Your task to perform on an android device: Open the stopwatch Image 0: 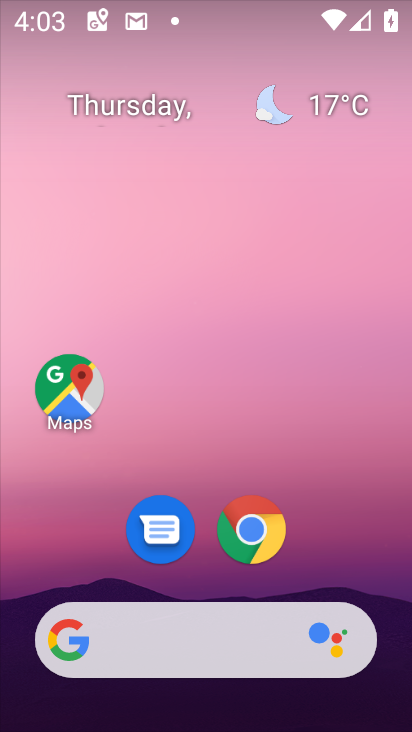
Step 0: drag from (178, 588) to (187, 12)
Your task to perform on an android device: Open the stopwatch Image 1: 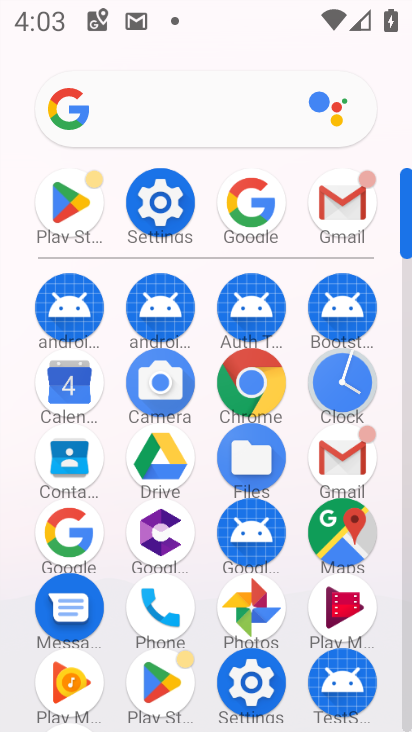
Step 1: click (333, 388)
Your task to perform on an android device: Open the stopwatch Image 2: 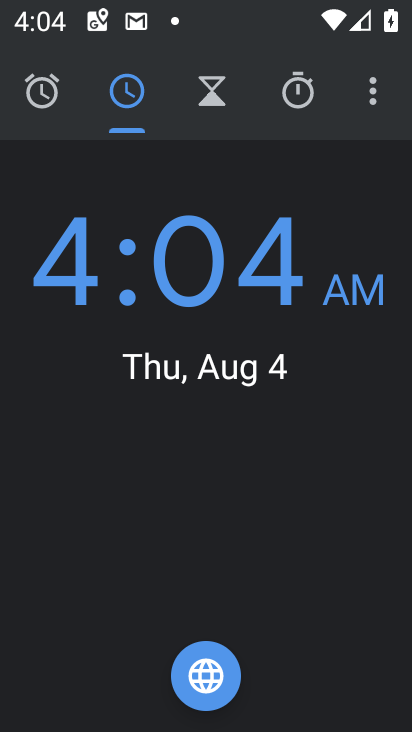
Step 2: click (310, 92)
Your task to perform on an android device: Open the stopwatch Image 3: 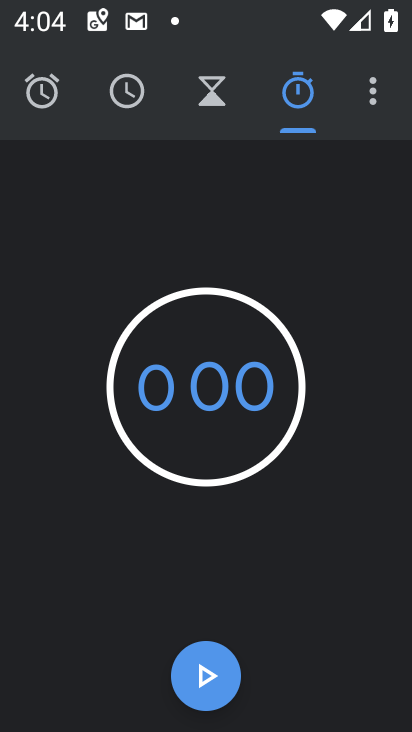
Step 3: task complete